Your task to perform on an android device: Play the last video I watched on Youtube Image 0: 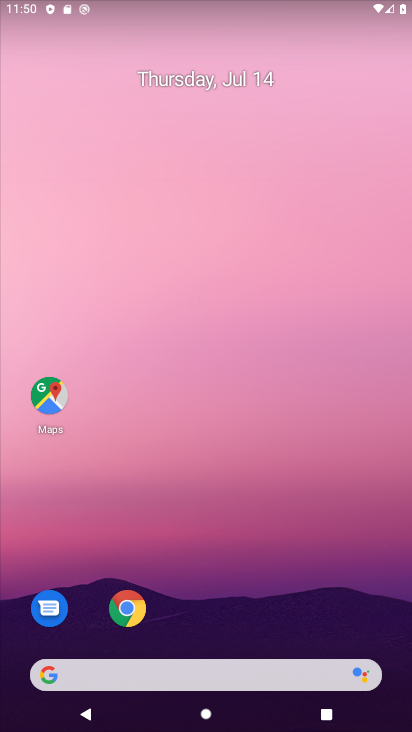
Step 0: click (161, 258)
Your task to perform on an android device: Play the last video I watched on Youtube Image 1: 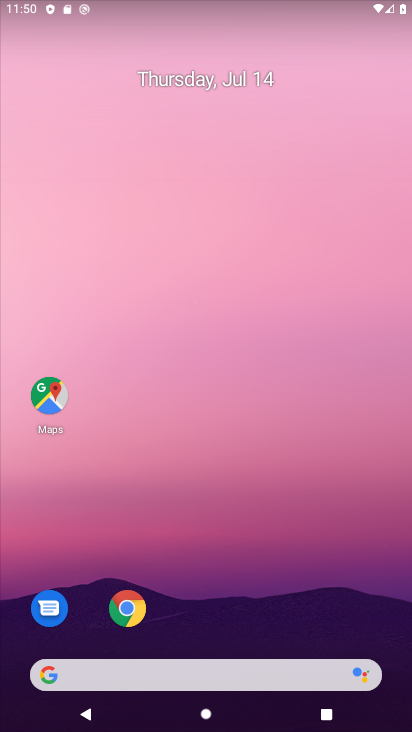
Step 1: drag from (183, 497) to (261, 46)
Your task to perform on an android device: Play the last video I watched on Youtube Image 2: 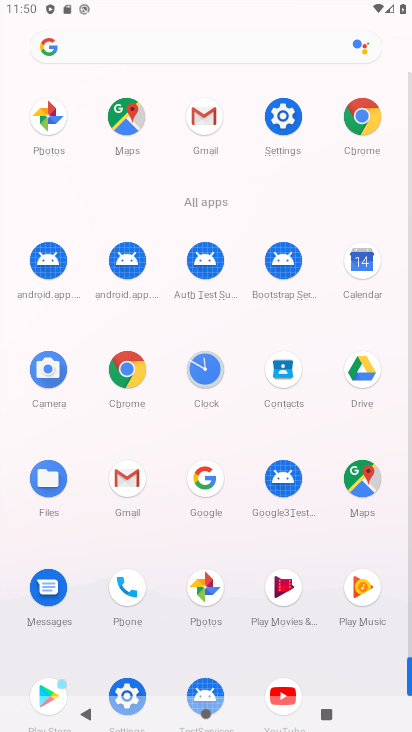
Step 2: click (280, 690)
Your task to perform on an android device: Play the last video I watched on Youtube Image 3: 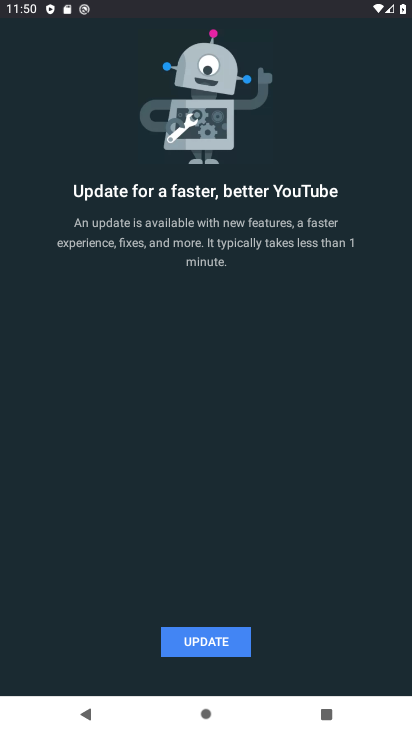
Step 3: click (206, 639)
Your task to perform on an android device: Play the last video I watched on Youtube Image 4: 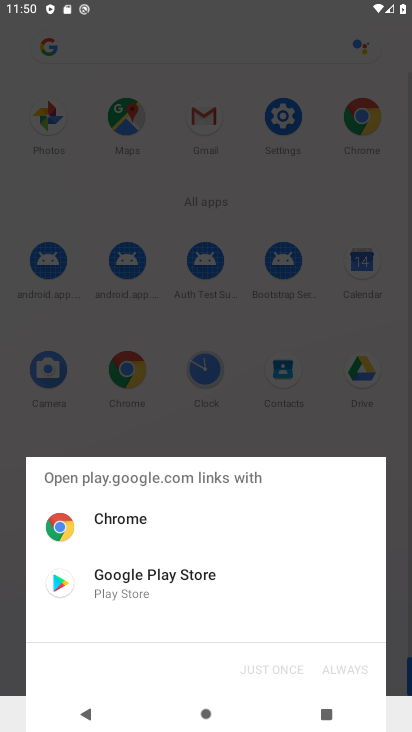
Step 4: click (171, 578)
Your task to perform on an android device: Play the last video I watched on Youtube Image 5: 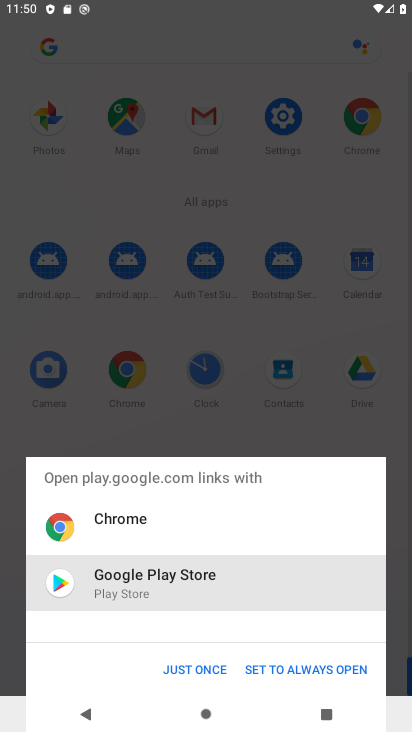
Step 5: click (266, 676)
Your task to perform on an android device: Play the last video I watched on Youtube Image 6: 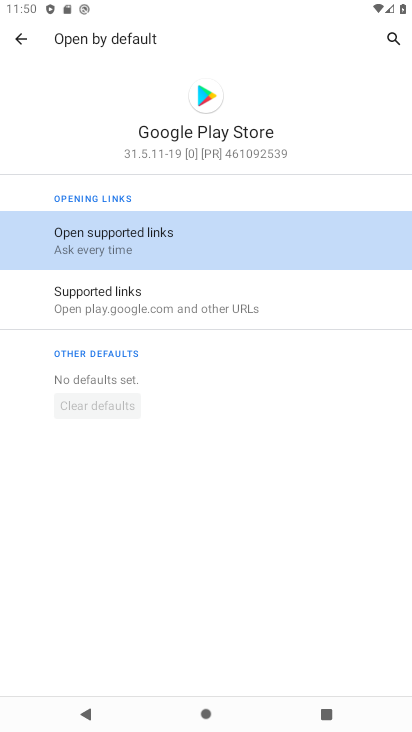
Step 6: click (157, 246)
Your task to perform on an android device: Play the last video I watched on Youtube Image 7: 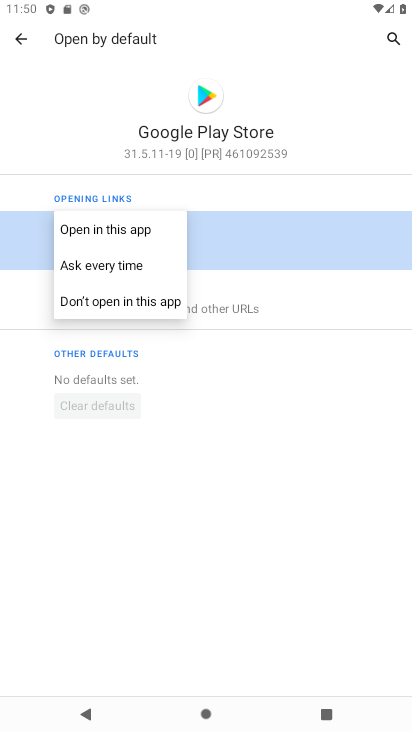
Step 7: click (111, 225)
Your task to perform on an android device: Play the last video I watched on Youtube Image 8: 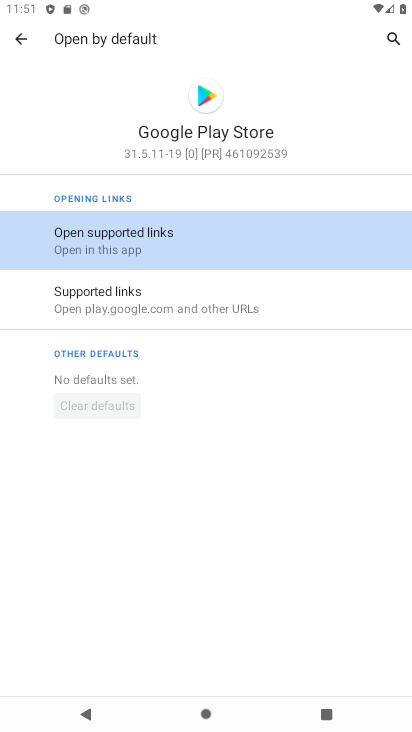
Step 8: click (21, 35)
Your task to perform on an android device: Play the last video I watched on Youtube Image 9: 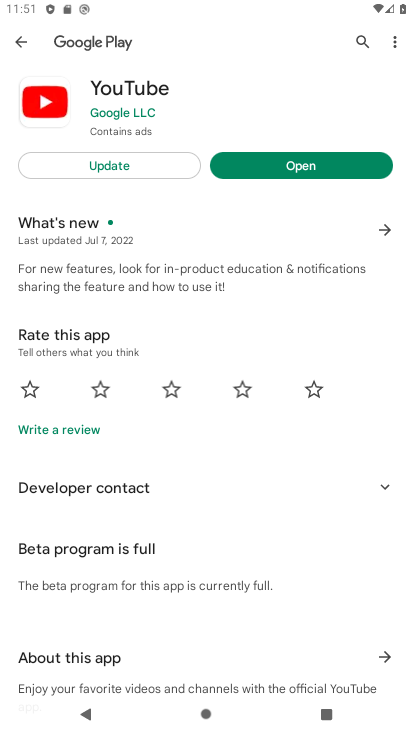
Step 9: click (109, 161)
Your task to perform on an android device: Play the last video I watched on Youtube Image 10: 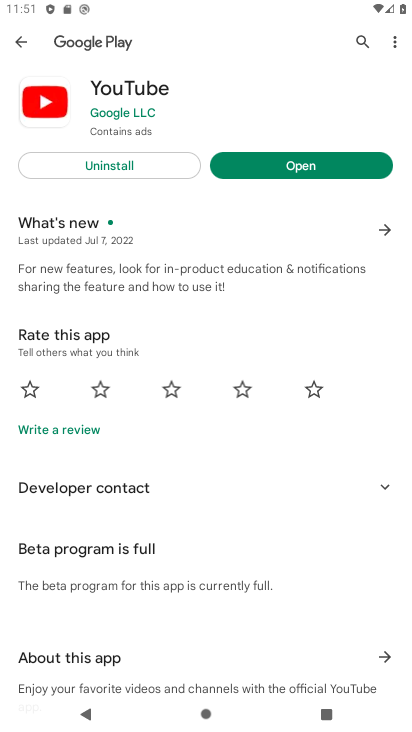
Step 10: click (303, 172)
Your task to perform on an android device: Play the last video I watched on Youtube Image 11: 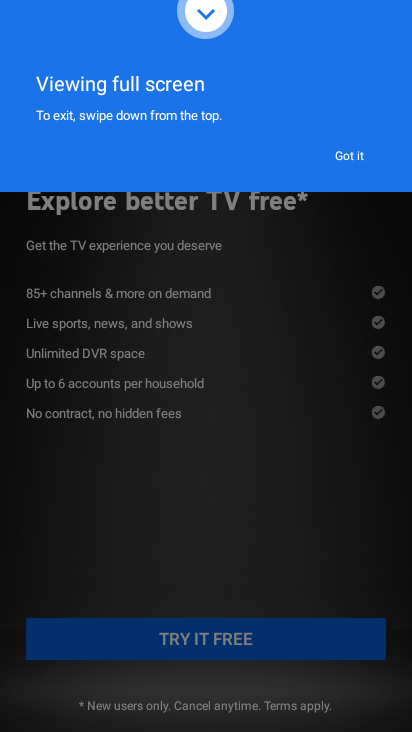
Step 11: click (344, 154)
Your task to perform on an android device: Play the last video I watched on Youtube Image 12: 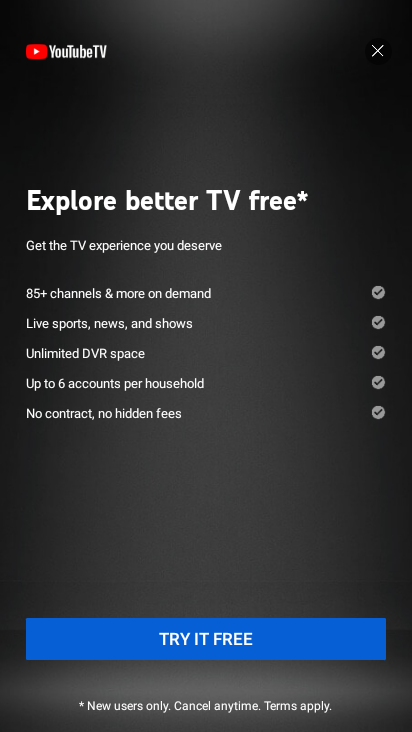
Step 12: click (380, 50)
Your task to perform on an android device: Play the last video I watched on Youtube Image 13: 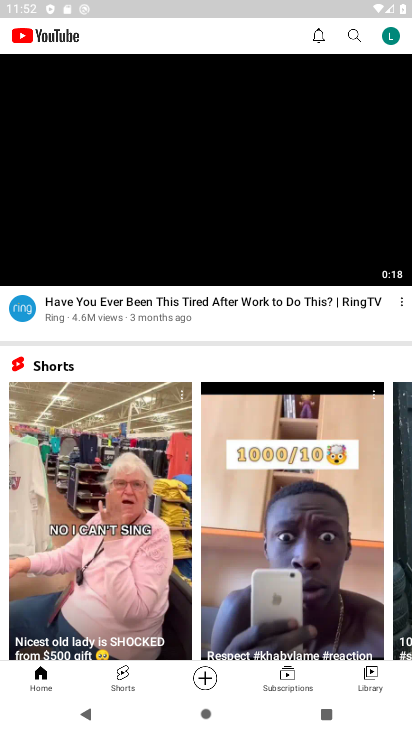
Step 13: click (375, 679)
Your task to perform on an android device: Play the last video I watched on Youtube Image 14: 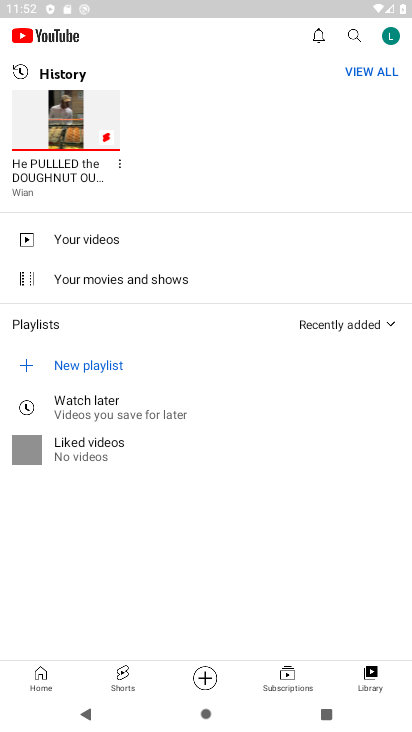
Step 14: task complete